Your task to perform on an android device: Search for the best rated soccer ball on AliExpress Image 0: 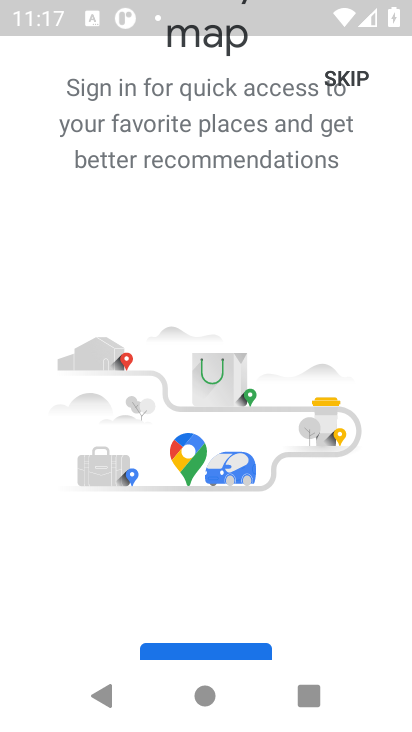
Step 0: press home button
Your task to perform on an android device: Search for the best rated soccer ball on AliExpress Image 1: 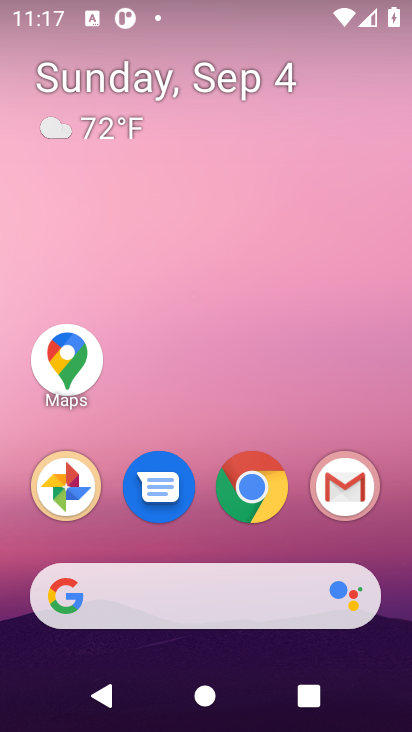
Step 1: click (157, 585)
Your task to perform on an android device: Search for the best rated soccer ball on AliExpress Image 2: 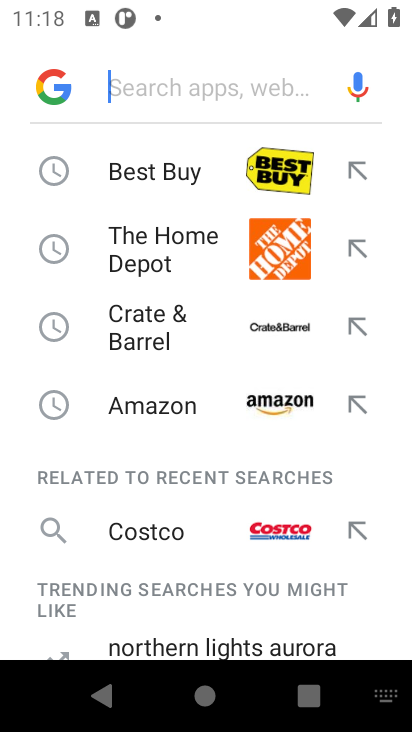
Step 2: type "ali express"
Your task to perform on an android device: Search for the best rated soccer ball on AliExpress Image 3: 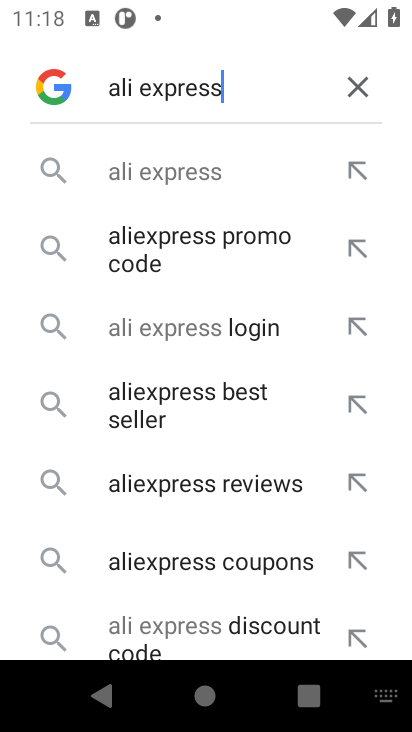
Step 3: click (154, 170)
Your task to perform on an android device: Search for the best rated soccer ball on AliExpress Image 4: 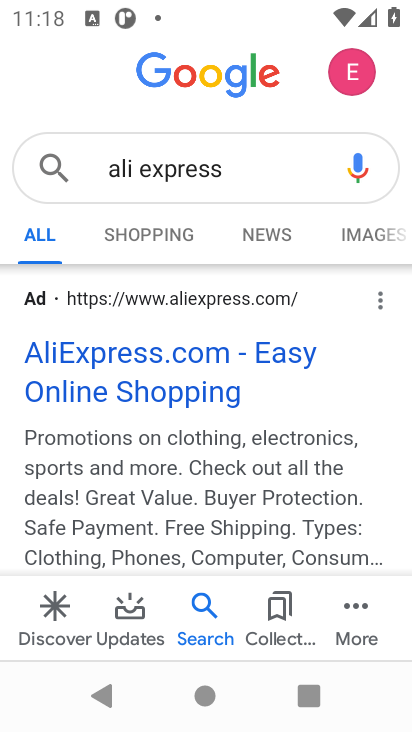
Step 4: click (168, 214)
Your task to perform on an android device: Search for the best rated soccer ball on AliExpress Image 5: 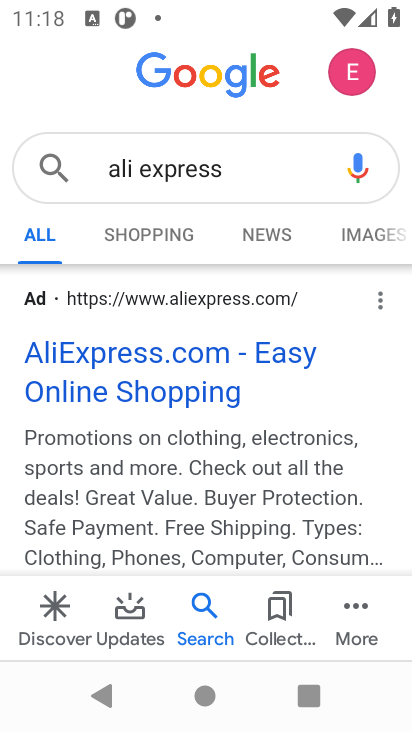
Step 5: click (194, 371)
Your task to perform on an android device: Search for the best rated soccer ball on AliExpress Image 6: 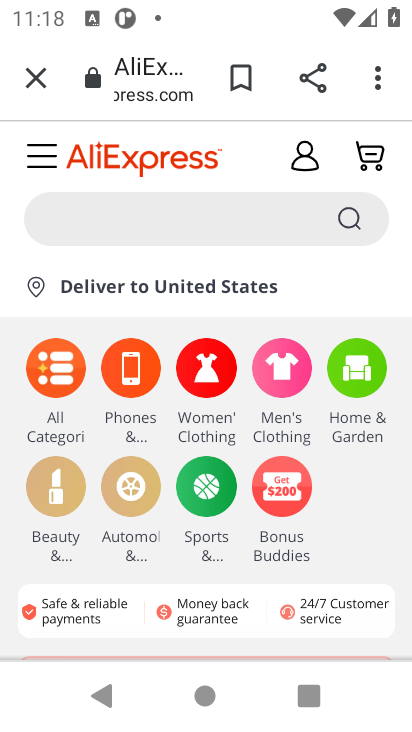
Step 6: click (197, 230)
Your task to perform on an android device: Search for the best rated soccer ball on AliExpress Image 7: 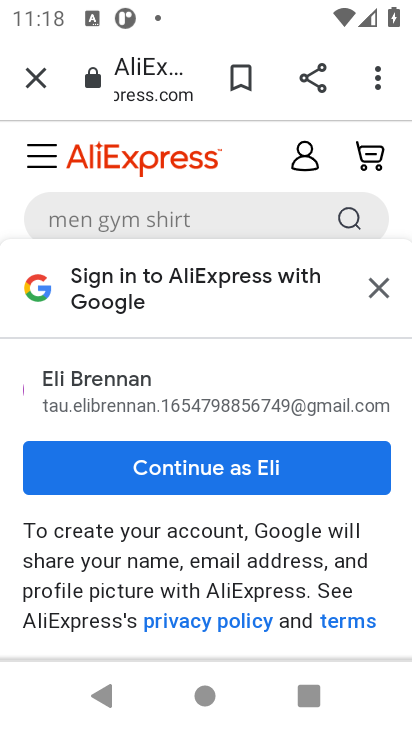
Step 7: click (240, 217)
Your task to perform on an android device: Search for the best rated soccer ball on AliExpress Image 8: 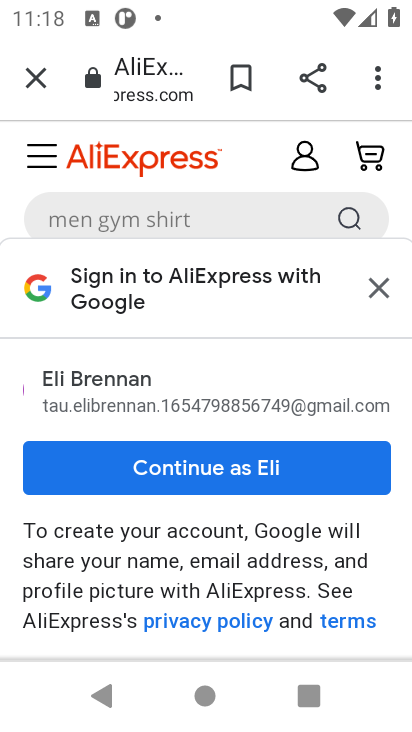
Step 8: click (367, 288)
Your task to perform on an android device: Search for the best rated soccer ball on AliExpress Image 9: 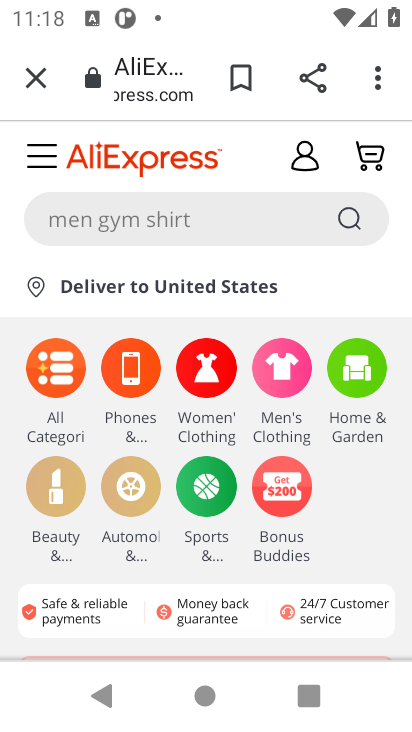
Step 9: click (350, 223)
Your task to perform on an android device: Search for the best rated soccer ball on AliExpress Image 10: 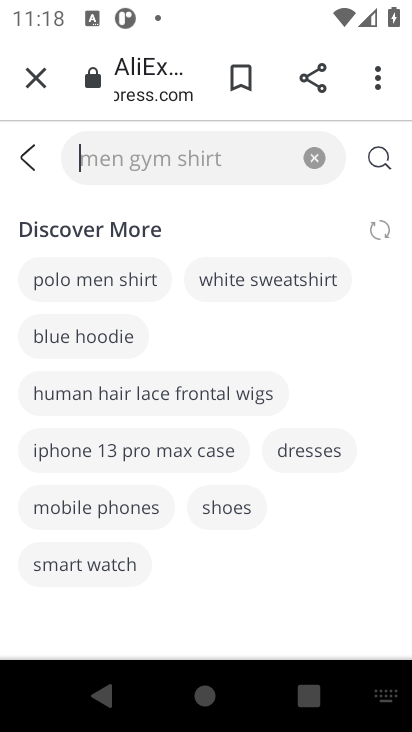
Step 10: type "soccer ball"
Your task to perform on an android device: Search for the best rated soccer ball on AliExpress Image 11: 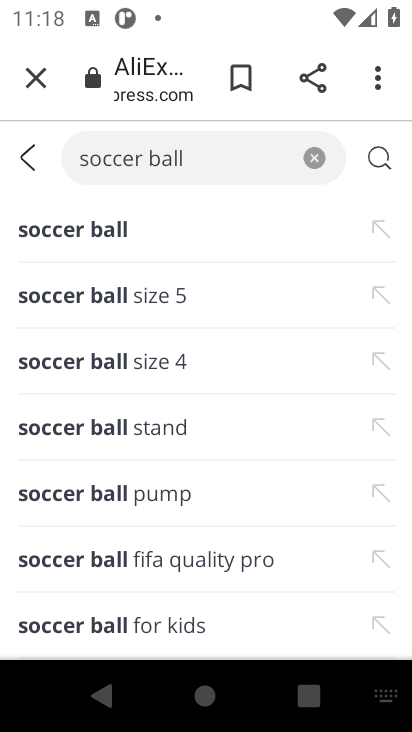
Step 11: click (211, 235)
Your task to perform on an android device: Search for the best rated soccer ball on AliExpress Image 12: 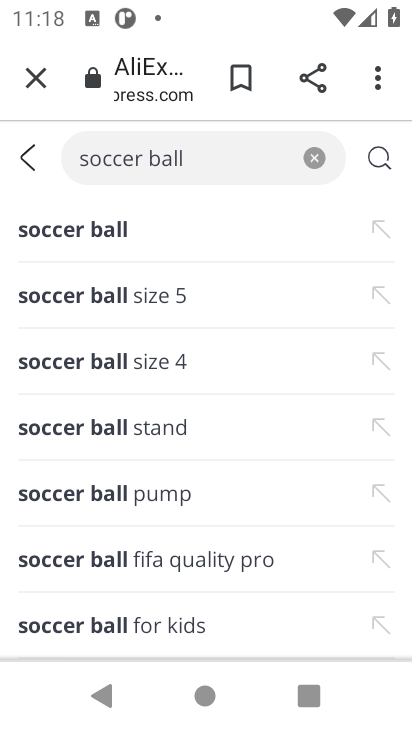
Step 12: click (112, 228)
Your task to perform on an android device: Search for the best rated soccer ball on AliExpress Image 13: 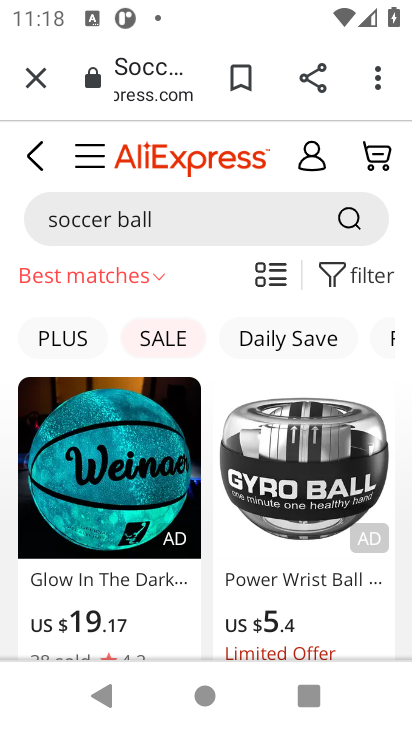
Step 13: task complete